Your task to perform on an android device: Go to ESPN.com Image 0: 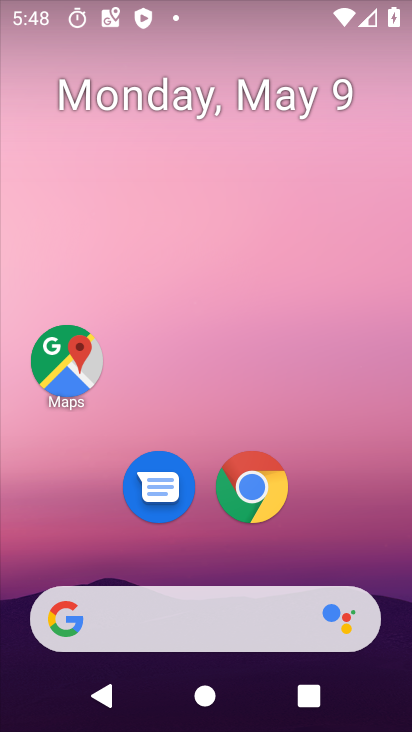
Step 0: click (249, 490)
Your task to perform on an android device: Go to ESPN.com Image 1: 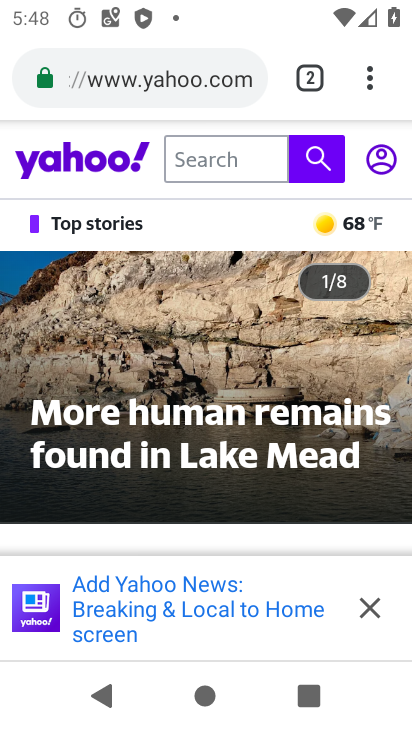
Step 1: click (318, 75)
Your task to perform on an android device: Go to ESPN.com Image 2: 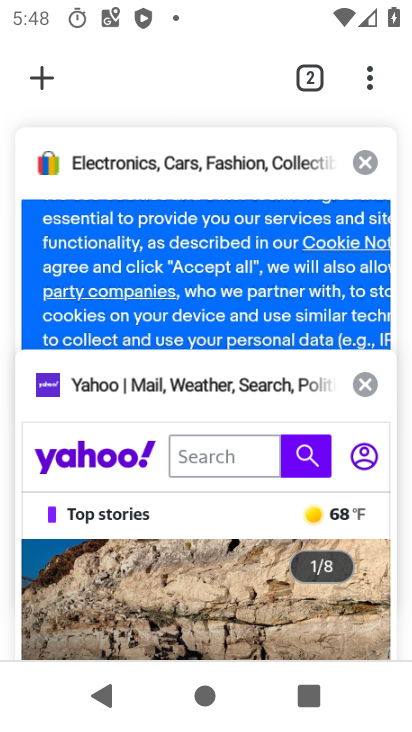
Step 2: click (353, 163)
Your task to perform on an android device: Go to ESPN.com Image 3: 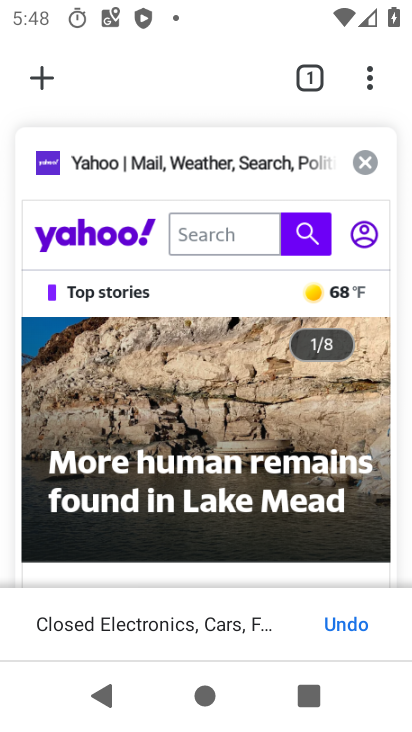
Step 3: click (375, 163)
Your task to perform on an android device: Go to ESPN.com Image 4: 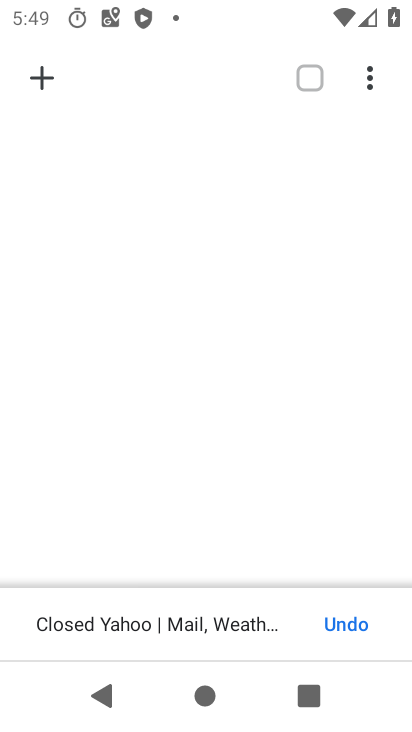
Step 4: click (40, 80)
Your task to perform on an android device: Go to ESPN.com Image 5: 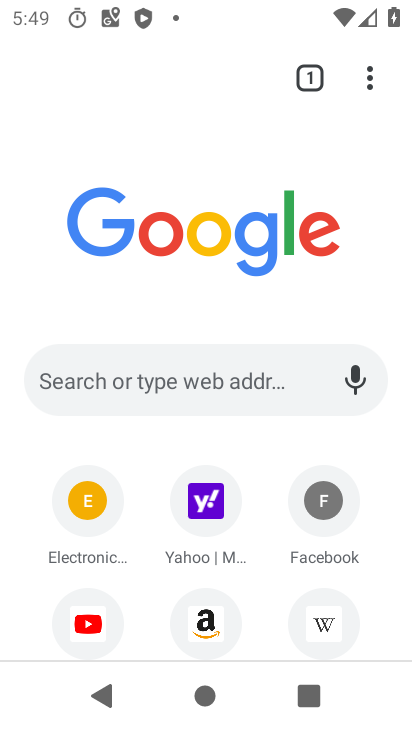
Step 5: drag from (123, 507) to (178, 206)
Your task to perform on an android device: Go to ESPN.com Image 6: 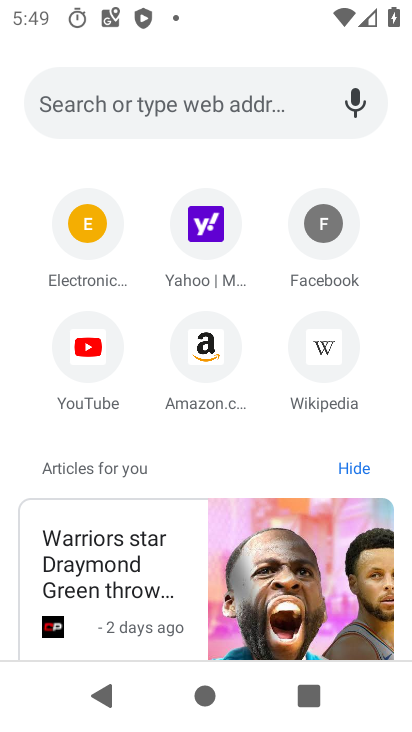
Step 6: click (173, 123)
Your task to perform on an android device: Go to ESPN.com Image 7: 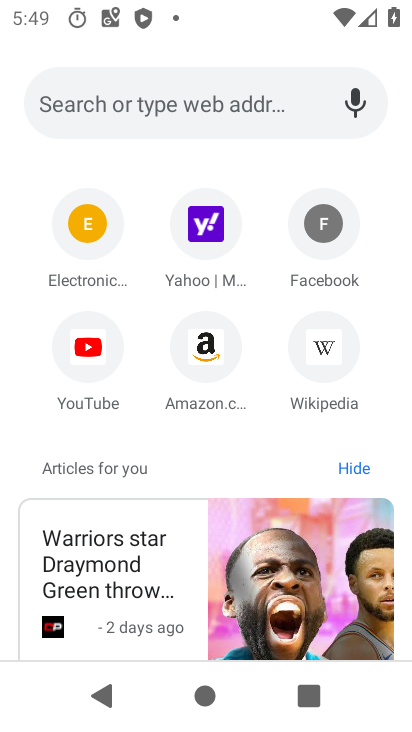
Step 7: click (161, 100)
Your task to perform on an android device: Go to ESPN.com Image 8: 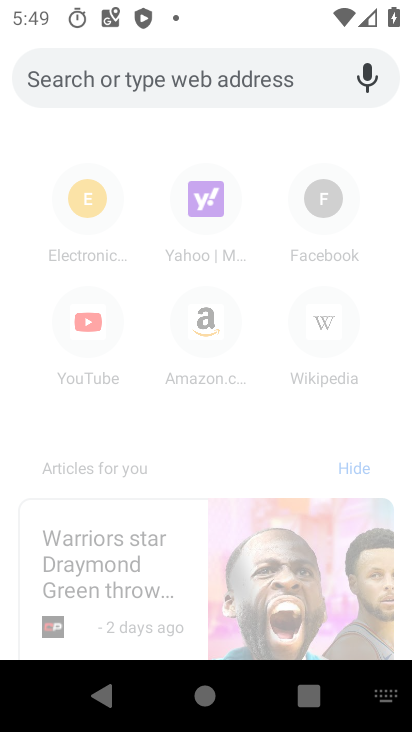
Step 8: click (168, 85)
Your task to perform on an android device: Go to ESPN.com Image 9: 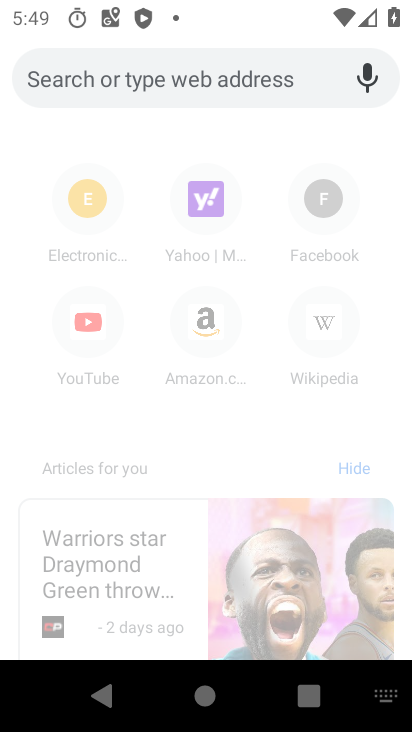
Step 9: click (168, 85)
Your task to perform on an android device: Go to ESPN.com Image 10: 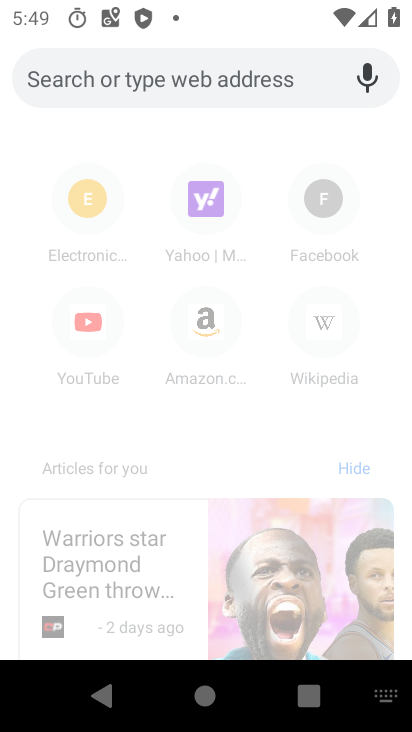
Step 10: type "www.espn.com"
Your task to perform on an android device: Go to ESPN.com Image 11: 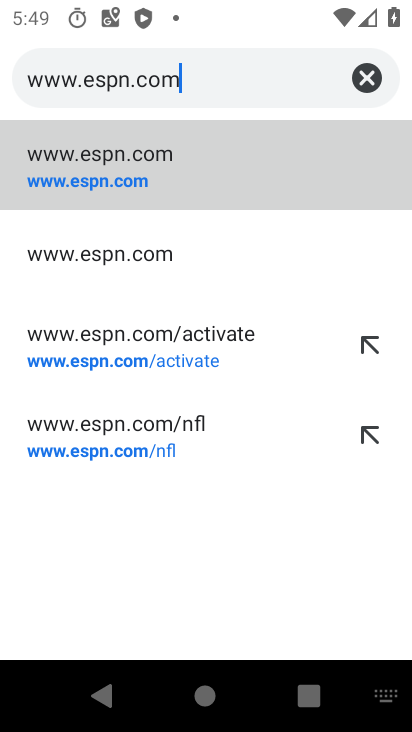
Step 11: click (106, 174)
Your task to perform on an android device: Go to ESPN.com Image 12: 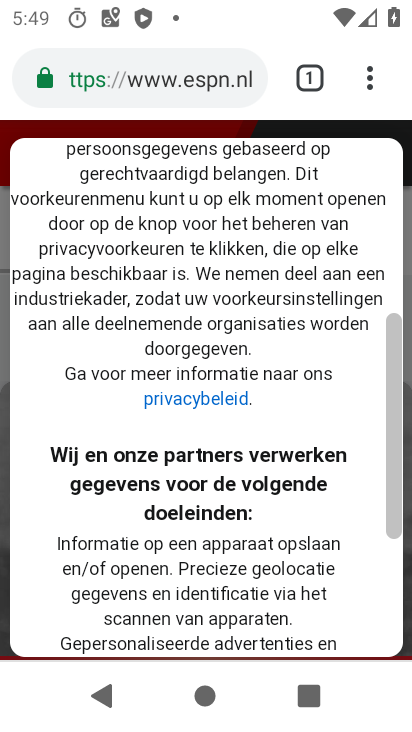
Step 12: task complete